Your task to perform on an android device: turn off sleep mode Image 0: 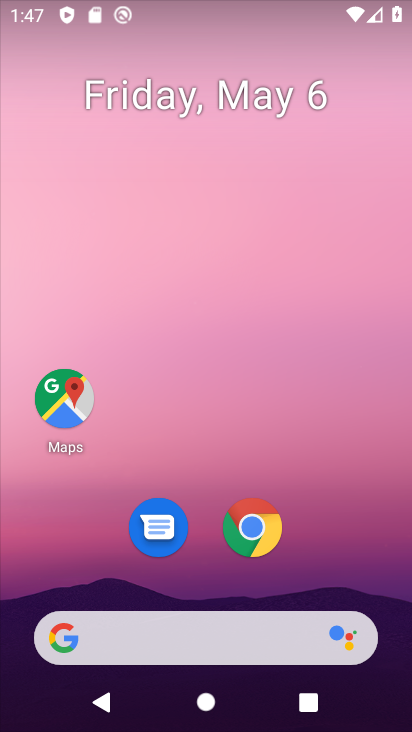
Step 0: drag from (342, 554) to (289, 76)
Your task to perform on an android device: turn off sleep mode Image 1: 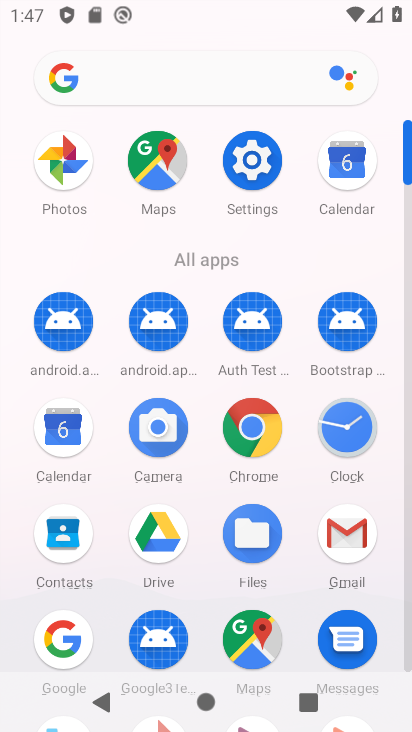
Step 1: click (250, 169)
Your task to perform on an android device: turn off sleep mode Image 2: 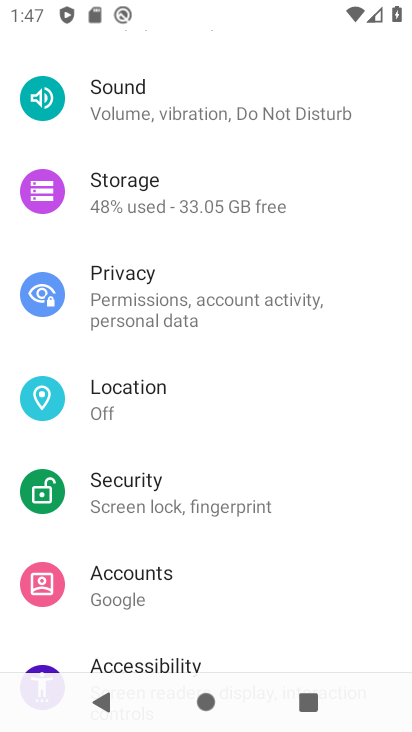
Step 2: task complete